Your task to perform on an android device: search for starred emails in the gmail app Image 0: 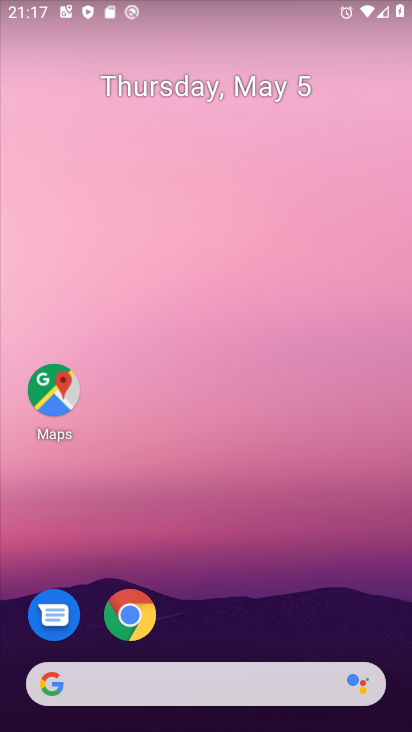
Step 0: drag from (217, 649) to (281, 141)
Your task to perform on an android device: search for starred emails in the gmail app Image 1: 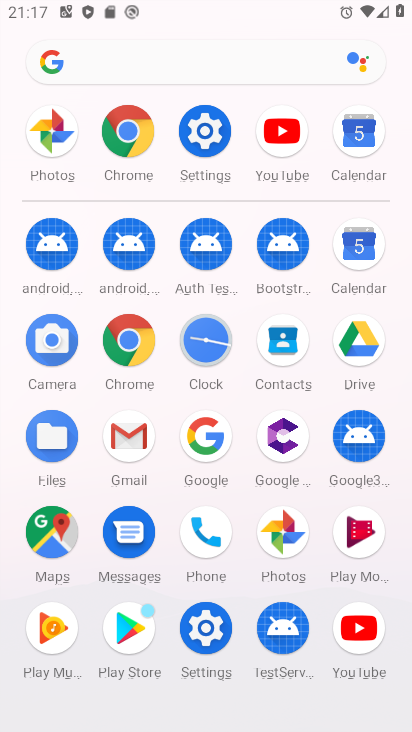
Step 1: click (124, 450)
Your task to perform on an android device: search for starred emails in the gmail app Image 2: 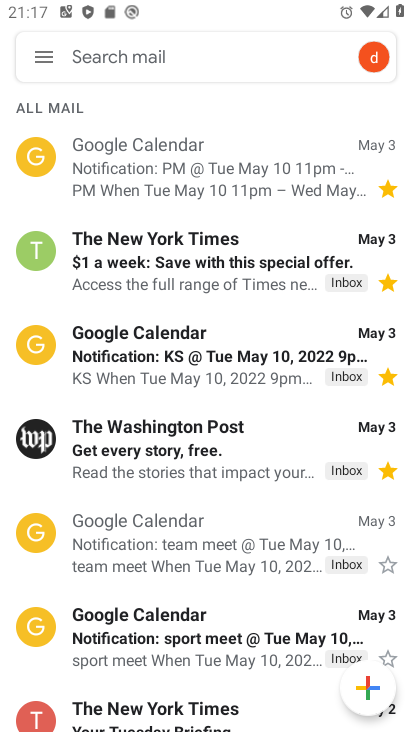
Step 2: click (41, 56)
Your task to perform on an android device: search for starred emails in the gmail app Image 3: 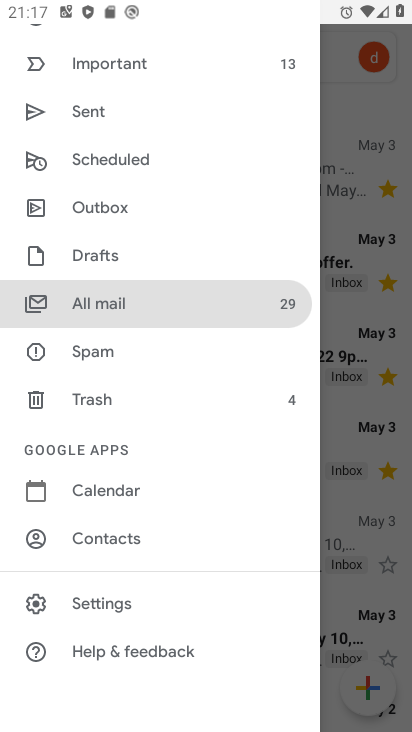
Step 3: drag from (148, 176) to (150, 654)
Your task to perform on an android device: search for starred emails in the gmail app Image 4: 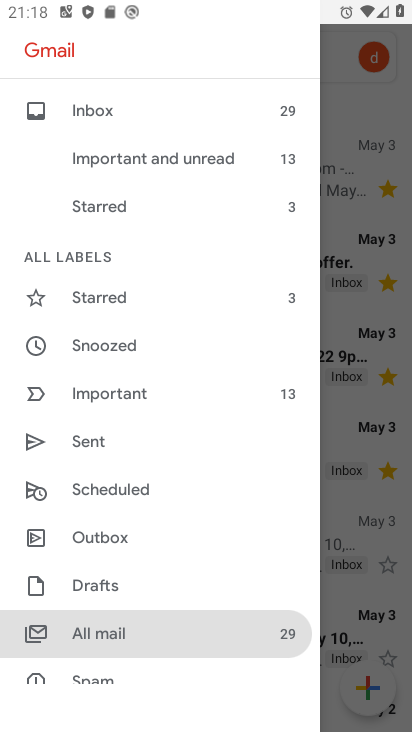
Step 4: click (128, 222)
Your task to perform on an android device: search for starred emails in the gmail app Image 5: 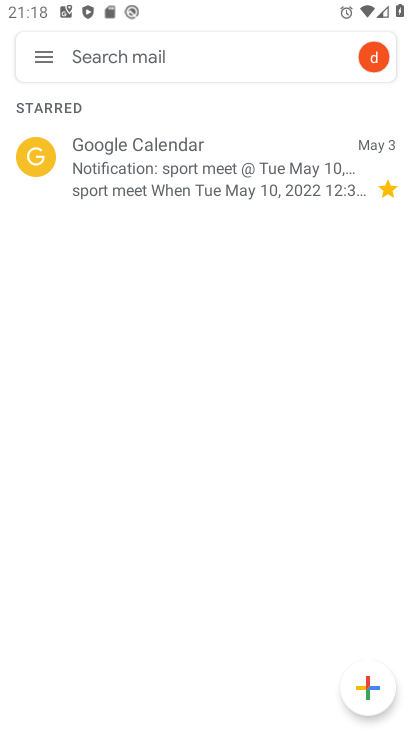
Step 5: task complete